Your task to perform on an android device: remove spam from my inbox in the gmail app Image 0: 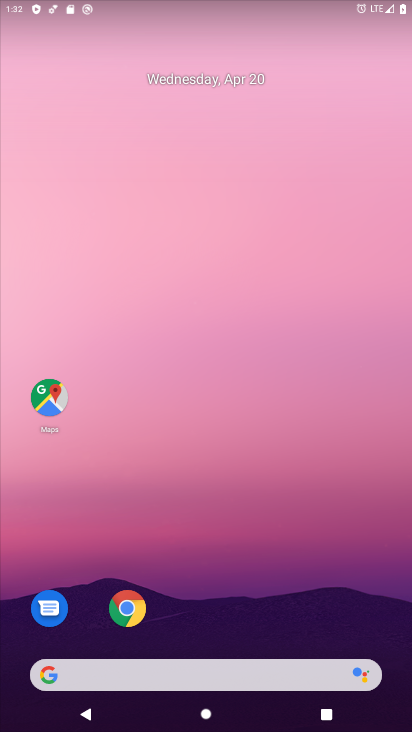
Step 0: drag from (211, 711) to (179, 79)
Your task to perform on an android device: remove spam from my inbox in the gmail app Image 1: 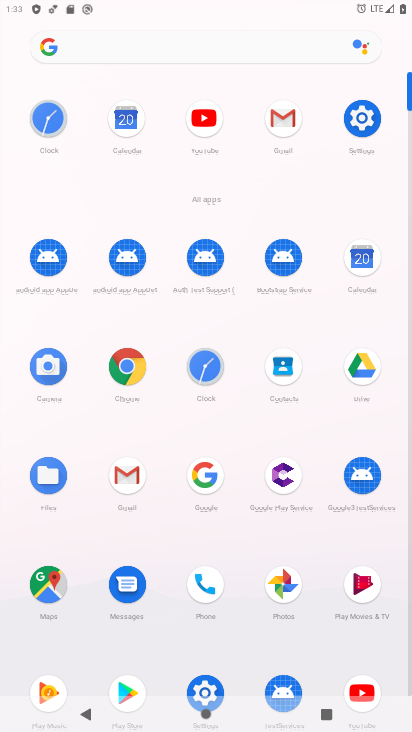
Step 1: click (128, 475)
Your task to perform on an android device: remove spam from my inbox in the gmail app Image 2: 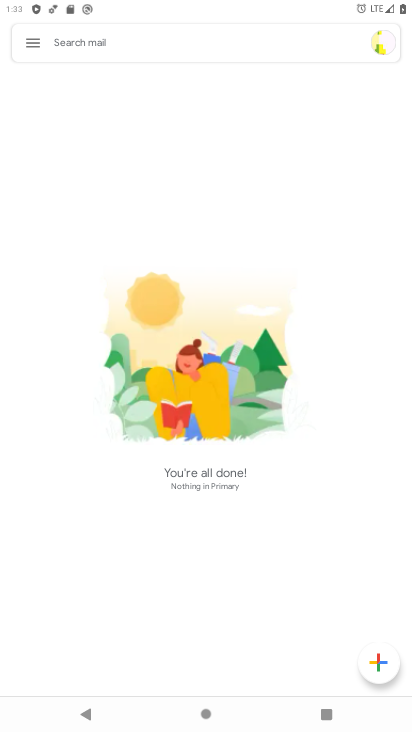
Step 2: task complete